Your task to perform on an android device: Turn on the flashlight Image 0: 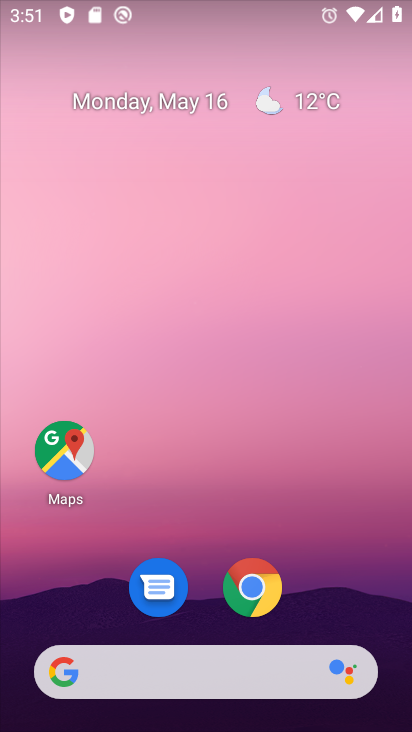
Step 0: drag from (375, 456) to (354, 296)
Your task to perform on an android device: Turn on the flashlight Image 1: 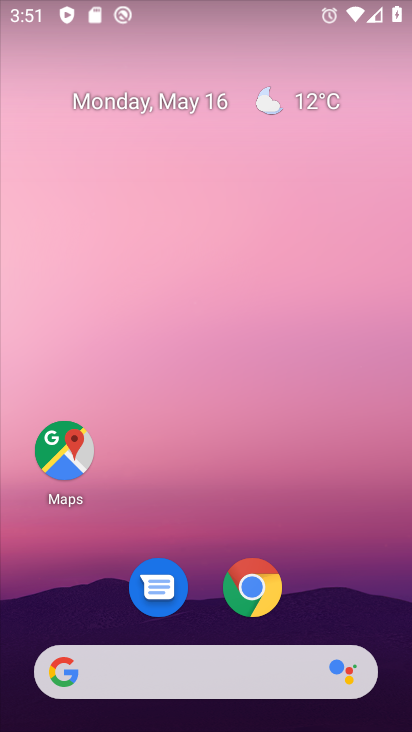
Step 1: drag from (384, 386) to (377, 181)
Your task to perform on an android device: Turn on the flashlight Image 2: 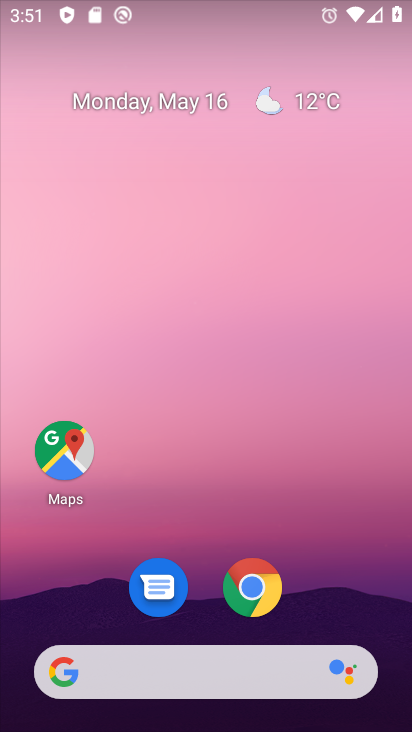
Step 2: drag from (400, 661) to (388, 239)
Your task to perform on an android device: Turn on the flashlight Image 3: 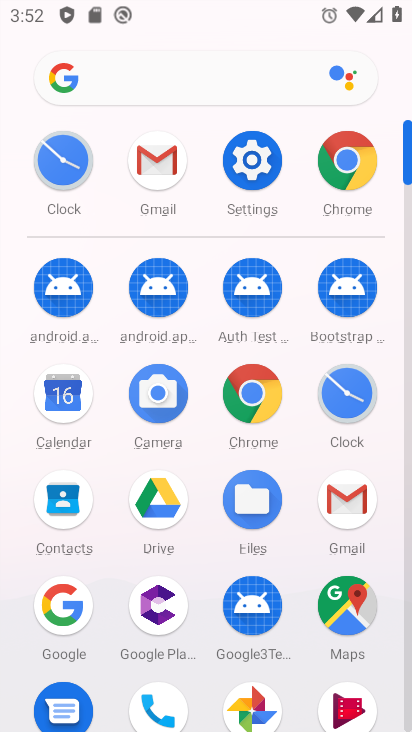
Step 3: click (256, 171)
Your task to perform on an android device: Turn on the flashlight Image 4: 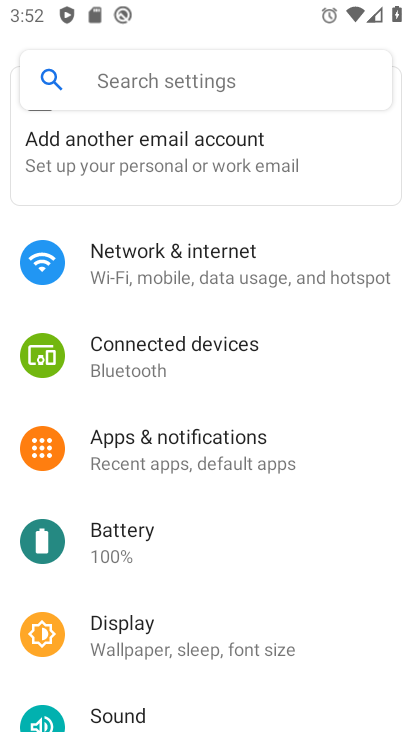
Step 4: click (226, 438)
Your task to perform on an android device: Turn on the flashlight Image 5: 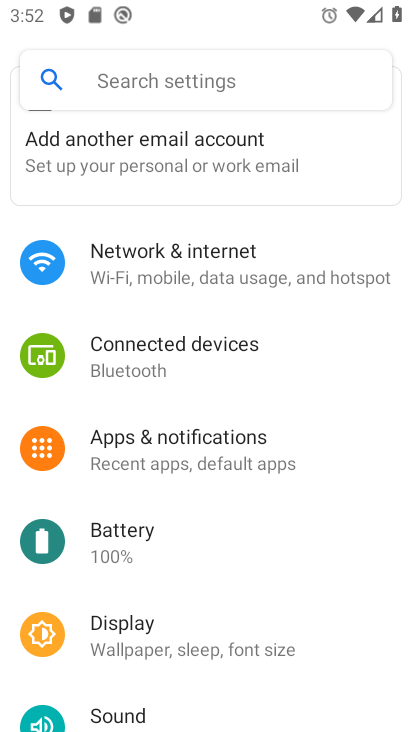
Step 5: task complete